Your task to perform on an android device: Go to wifi settings Image 0: 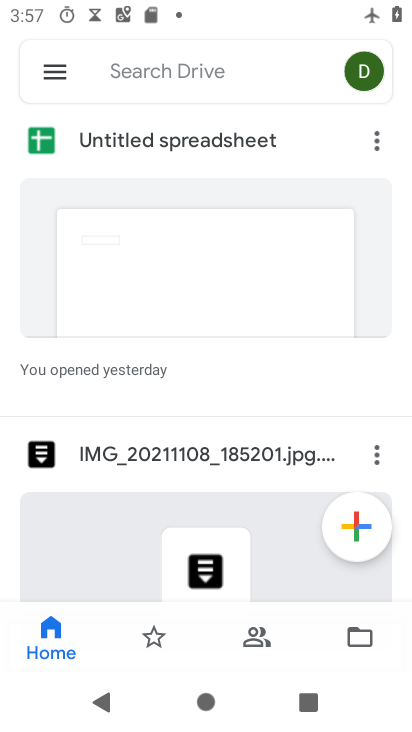
Step 0: press home button
Your task to perform on an android device: Go to wifi settings Image 1: 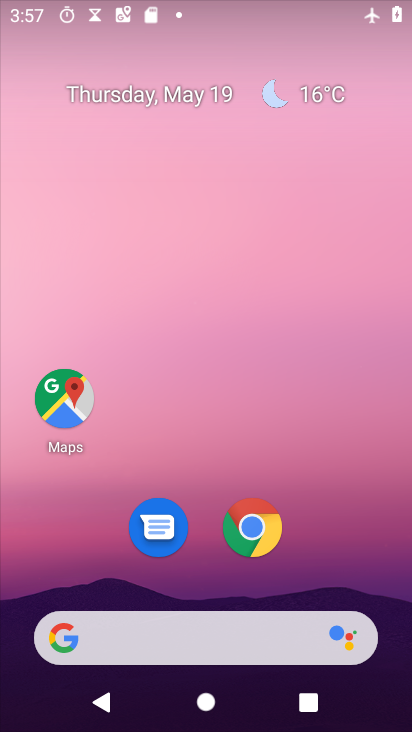
Step 1: drag from (353, 542) to (261, 59)
Your task to perform on an android device: Go to wifi settings Image 2: 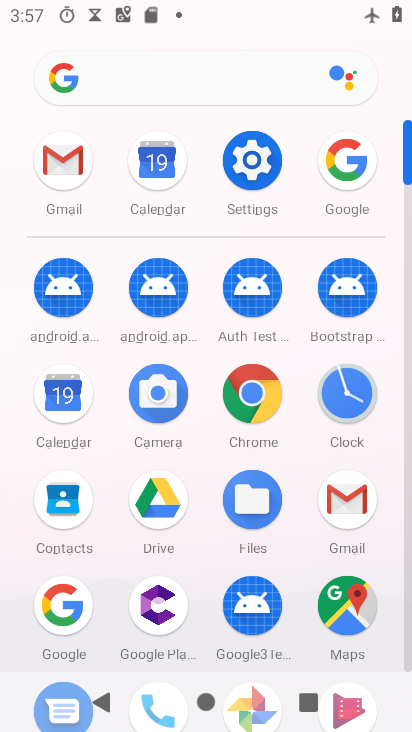
Step 2: click (260, 149)
Your task to perform on an android device: Go to wifi settings Image 3: 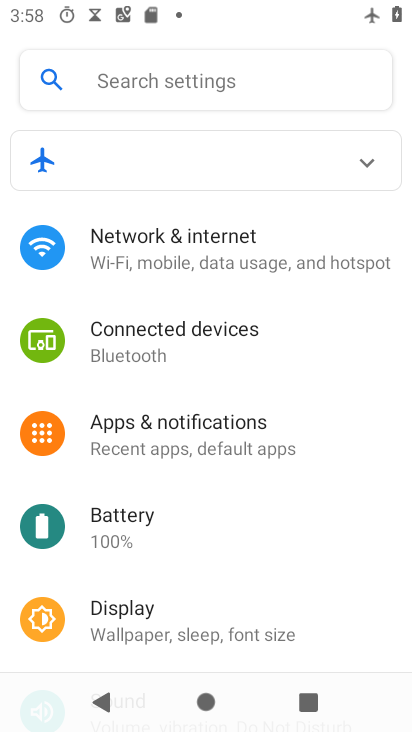
Step 3: click (214, 250)
Your task to perform on an android device: Go to wifi settings Image 4: 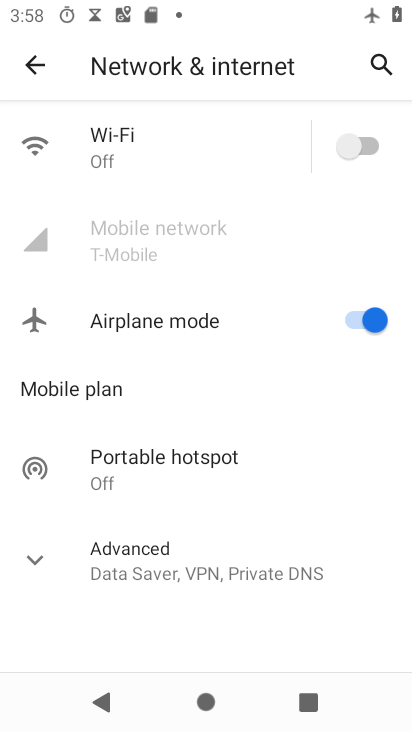
Step 4: click (194, 135)
Your task to perform on an android device: Go to wifi settings Image 5: 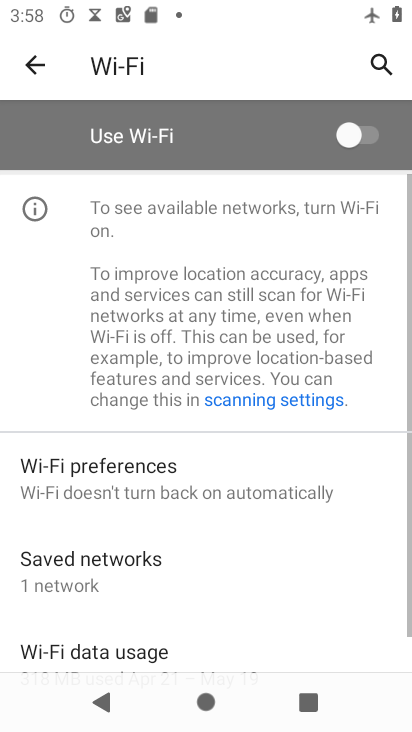
Step 5: task complete